Your task to perform on an android device: open app "Mercado Libre" (install if not already installed) and enter user name: "tolerating@yahoo.com" and password: "Kepler" Image 0: 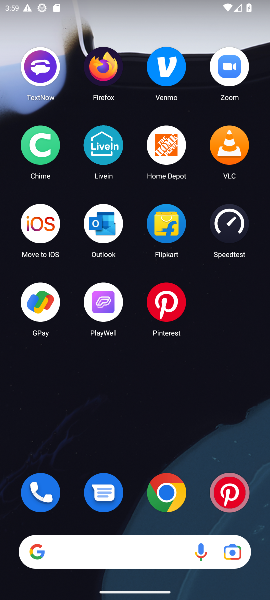
Step 0: drag from (137, 521) to (116, 3)
Your task to perform on an android device: open app "Mercado Libre" (install if not already installed) and enter user name: "tolerating@yahoo.com" and password: "Kepler" Image 1: 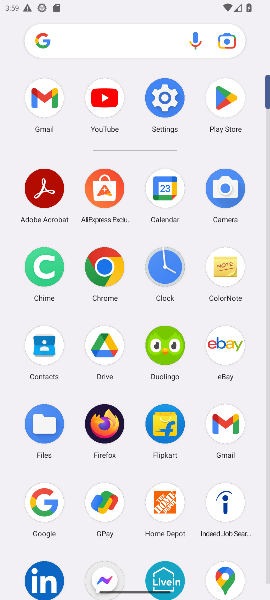
Step 1: click (222, 93)
Your task to perform on an android device: open app "Mercado Libre" (install if not already installed) and enter user name: "tolerating@yahoo.com" and password: "Kepler" Image 2: 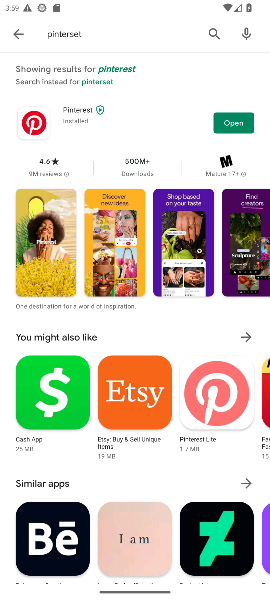
Step 2: click (218, 34)
Your task to perform on an android device: open app "Mercado Libre" (install if not already installed) and enter user name: "tolerating@yahoo.com" and password: "Kepler" Image 3: 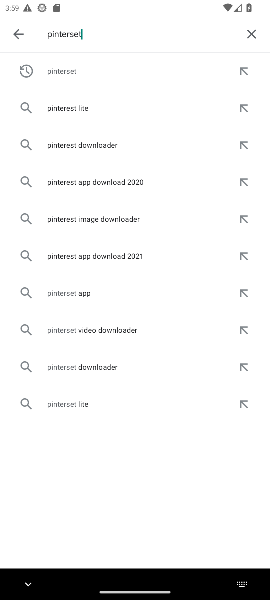
Step 3: click (246, 38)
Your task to perform on an android device: open app "Mercado Libre" (install if not already installed) and enter user name: "tolerating@yahoo.com" and password: "Kepler" Image 4: 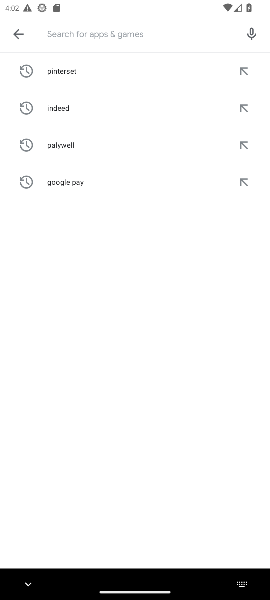
Step 4: type "mercado"
Your task to perform on an android device: open app "Mercado Libre" (install if not already installed) and enter user name: "tolerating@yahoo.com" and password: "Kepler" Image 5: 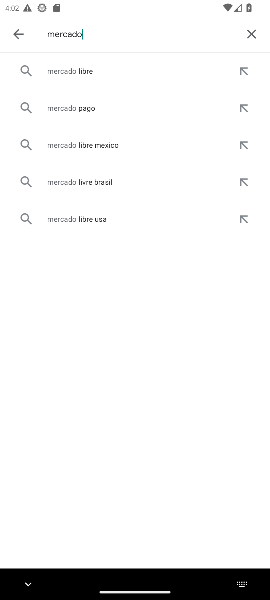
Step 5: click (79, 77)
Your task to perform on an android device: open app "Mercado Libre" (install if not already installed) and enter user name: "tolerating@yahoo.com" and password: "Kepler" Image 6: 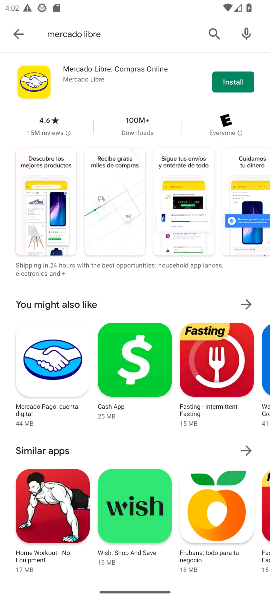
Step 6: click (225, 73)
Your task to perform on an android device: open app "Mercado Libre" (install if not already installed) and enter user name: "tolerating@yahoo.com" and password: "Kepler" Image 7: 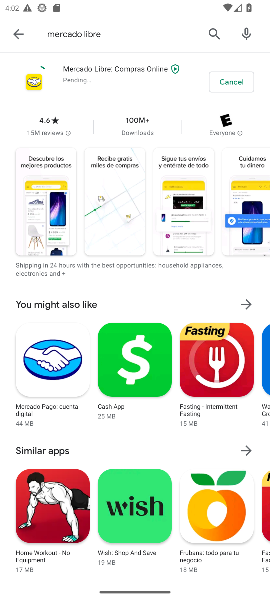
Step 7: task complete